Your task to perform on an android device: Search for sushi restaurants on Maps Image 0: 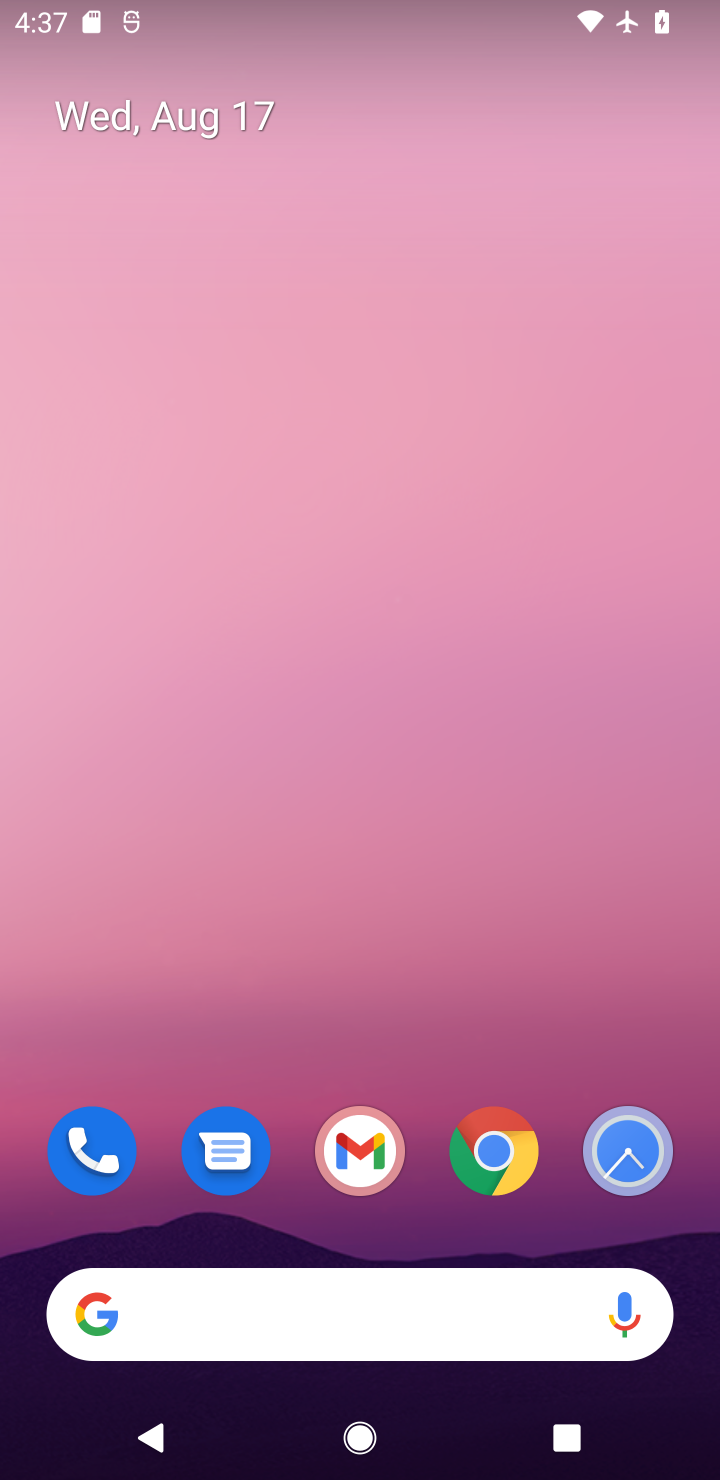
Step 0: drag from (414, 1239) to (366, 278)
Your task to perform on an android device: Search for sushi restaurants on Maps Image 1: 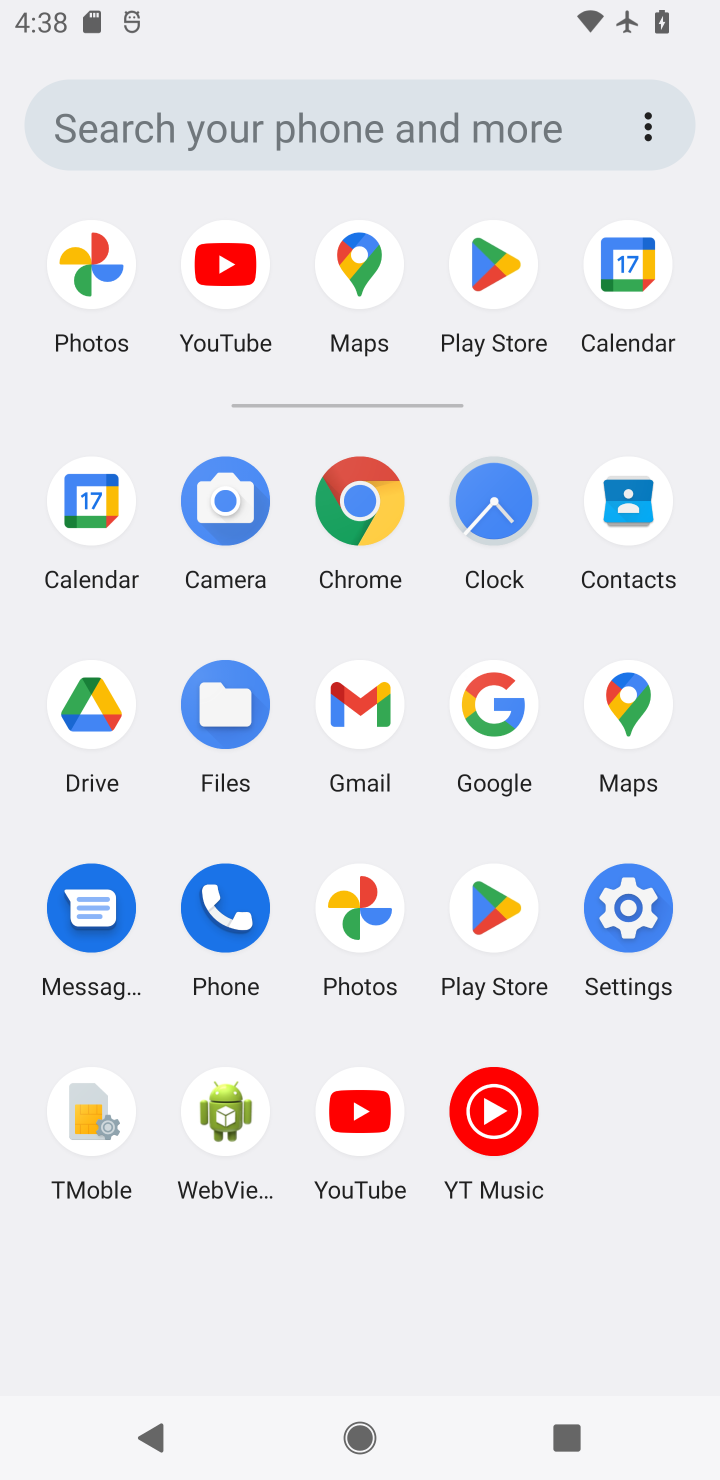
Step 1: click (634, 674)
Your task to perform on an android device: Search for sushi restaurants on Maps Image 2: 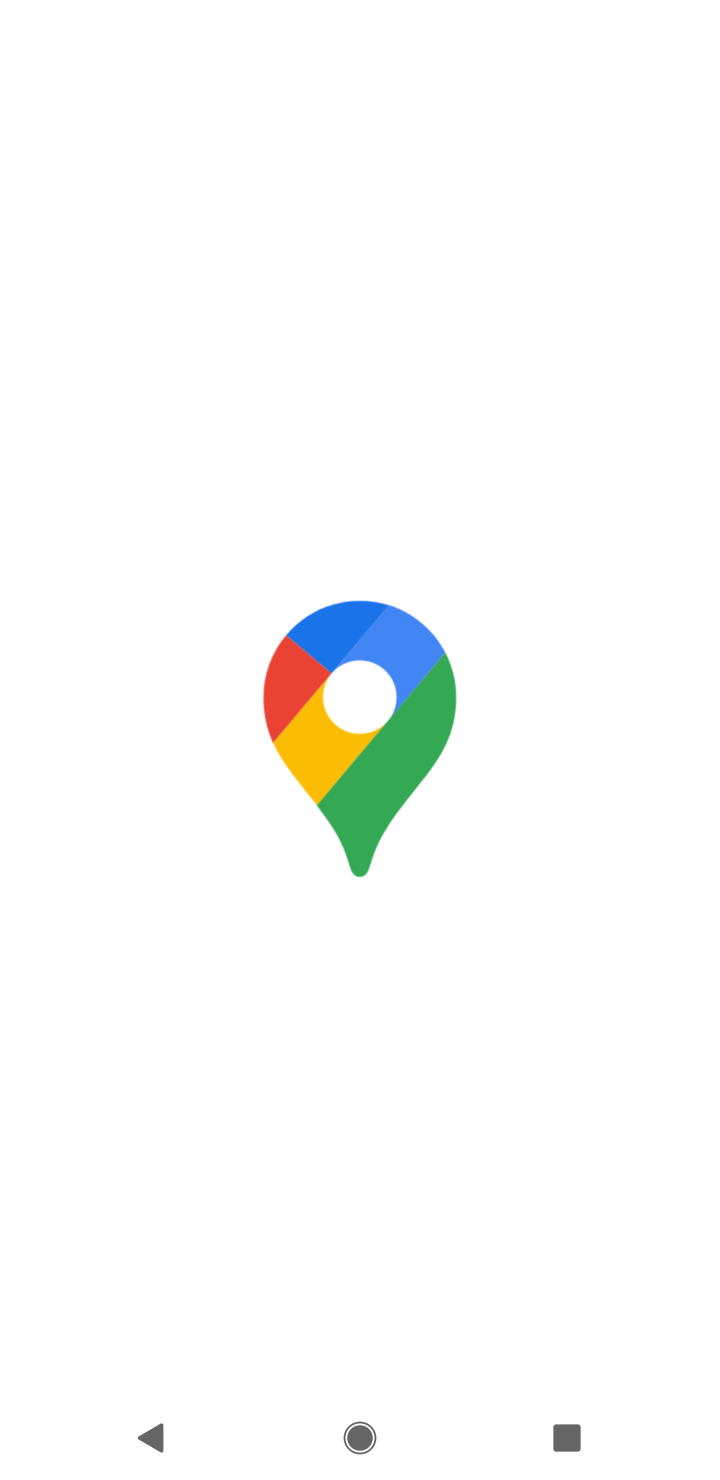
Step 2: task complete